Your task to perform on an android device: open app "Google Maps" (install if not already installed) Image 0: 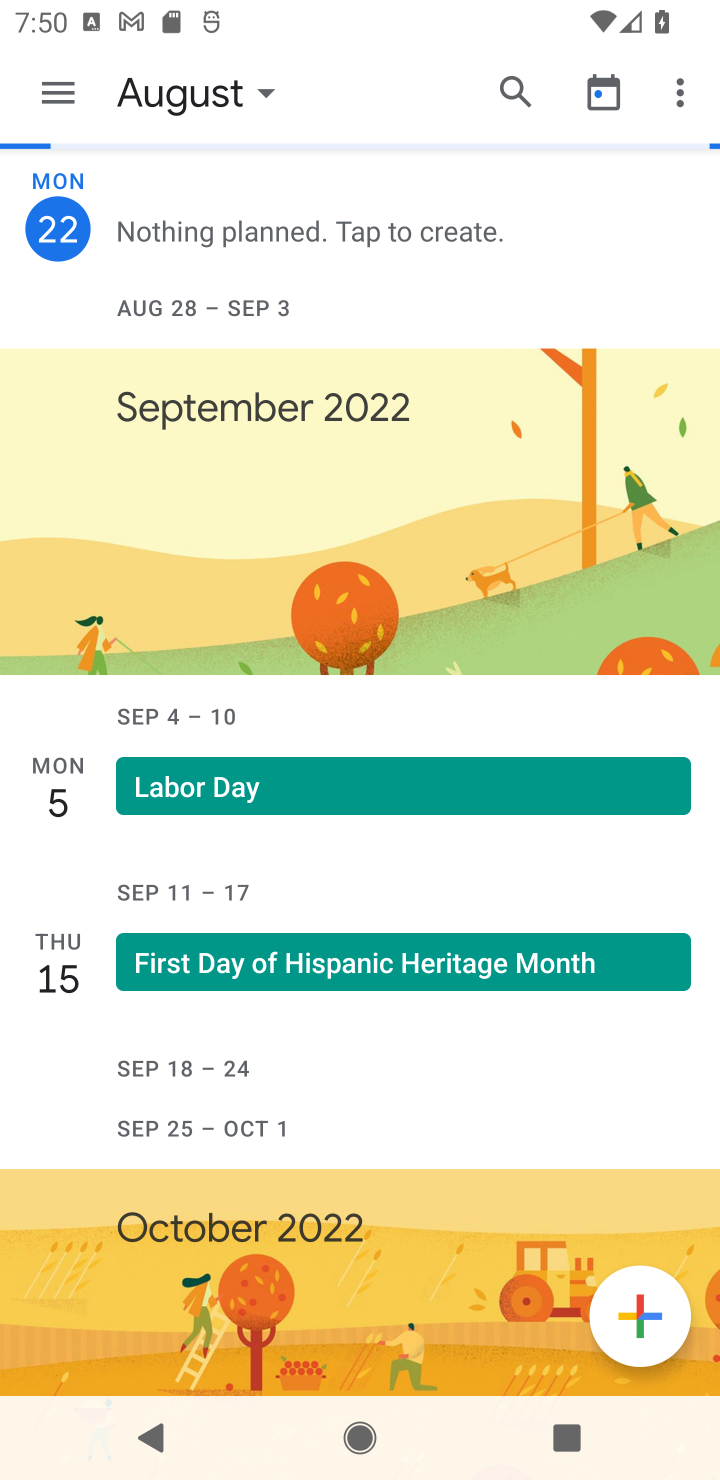
Step 0: press home button
Your task to perform on an android device: open app "Google Maps" (install if not already installed) Image 1: 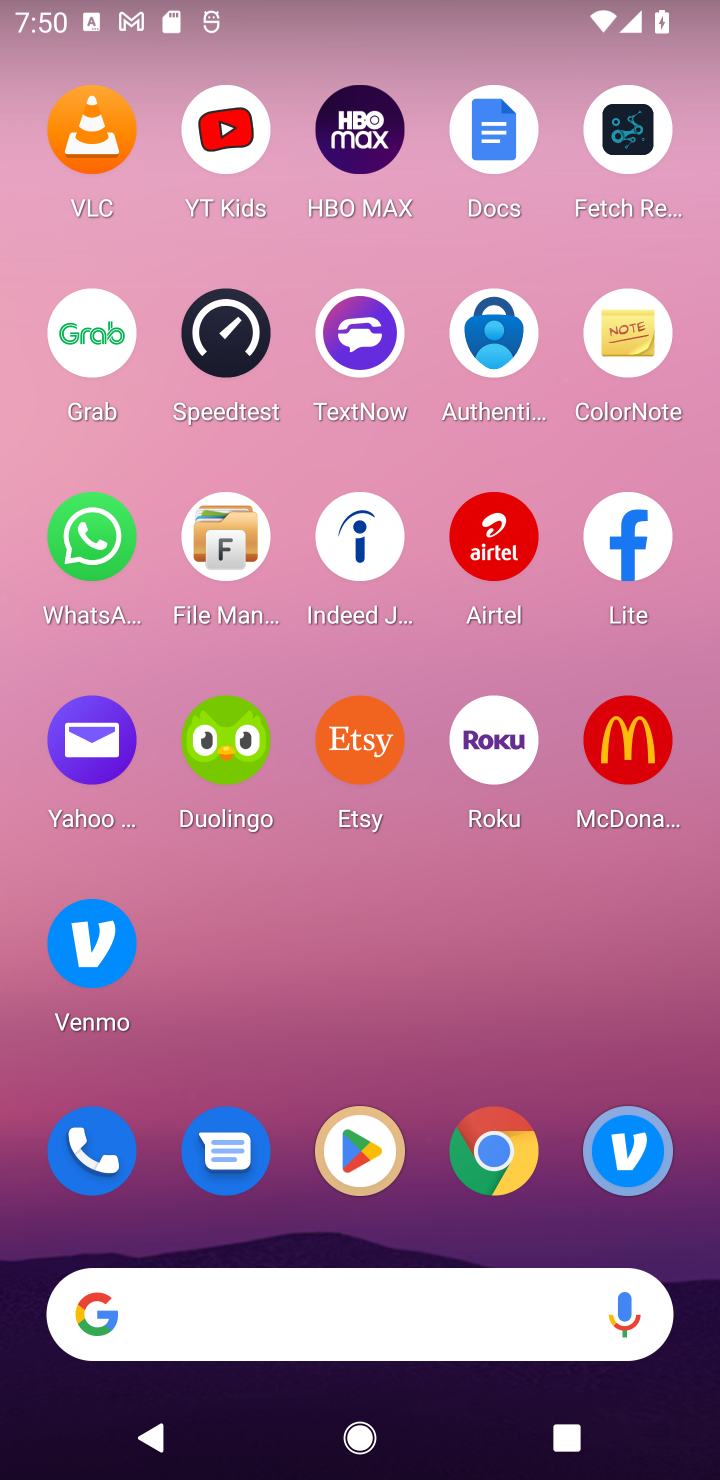
Step 1: press home button
Your task to perform on an android device: open app "Google Maps" (install if not already installed) Image 2: 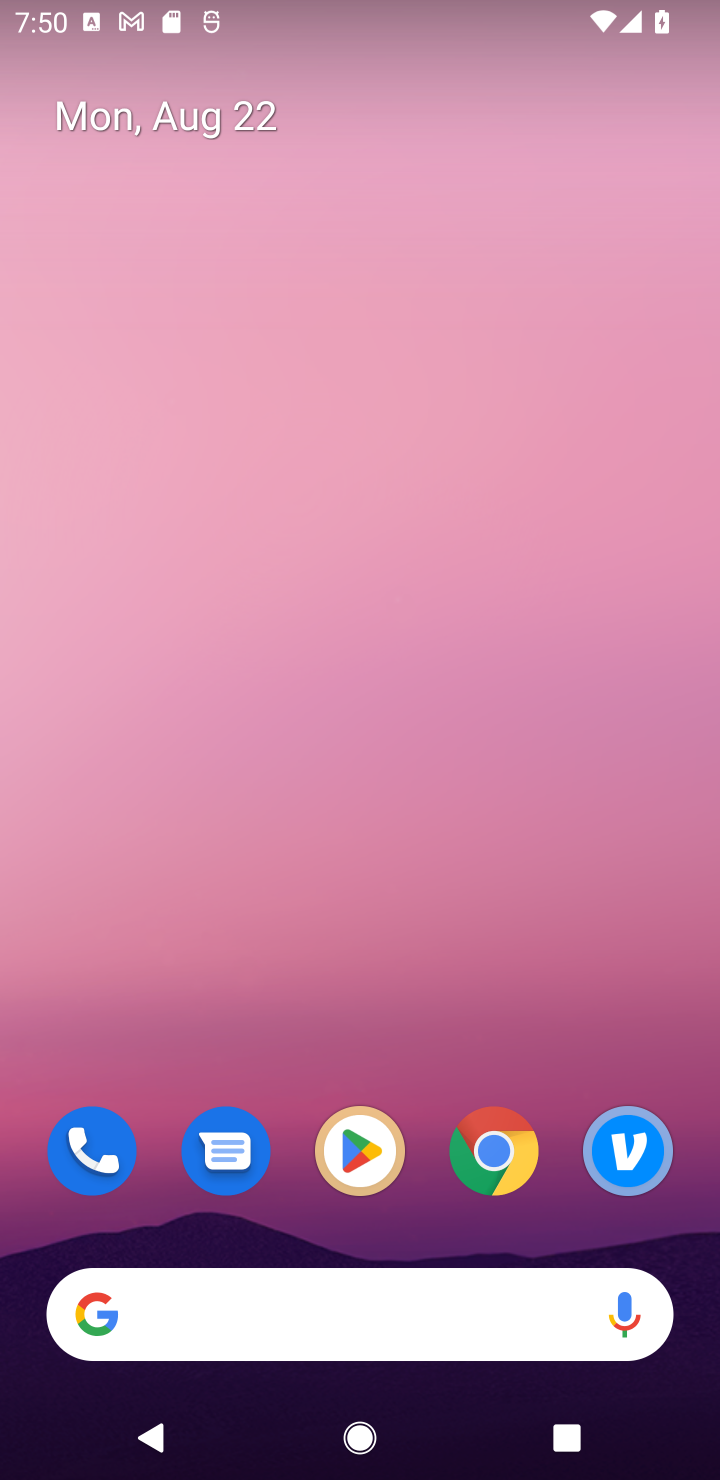
Step 2: click (347, 1136)
Your task to perform on an android device: open app "Google Maps" (install if not already installed) Image 3: 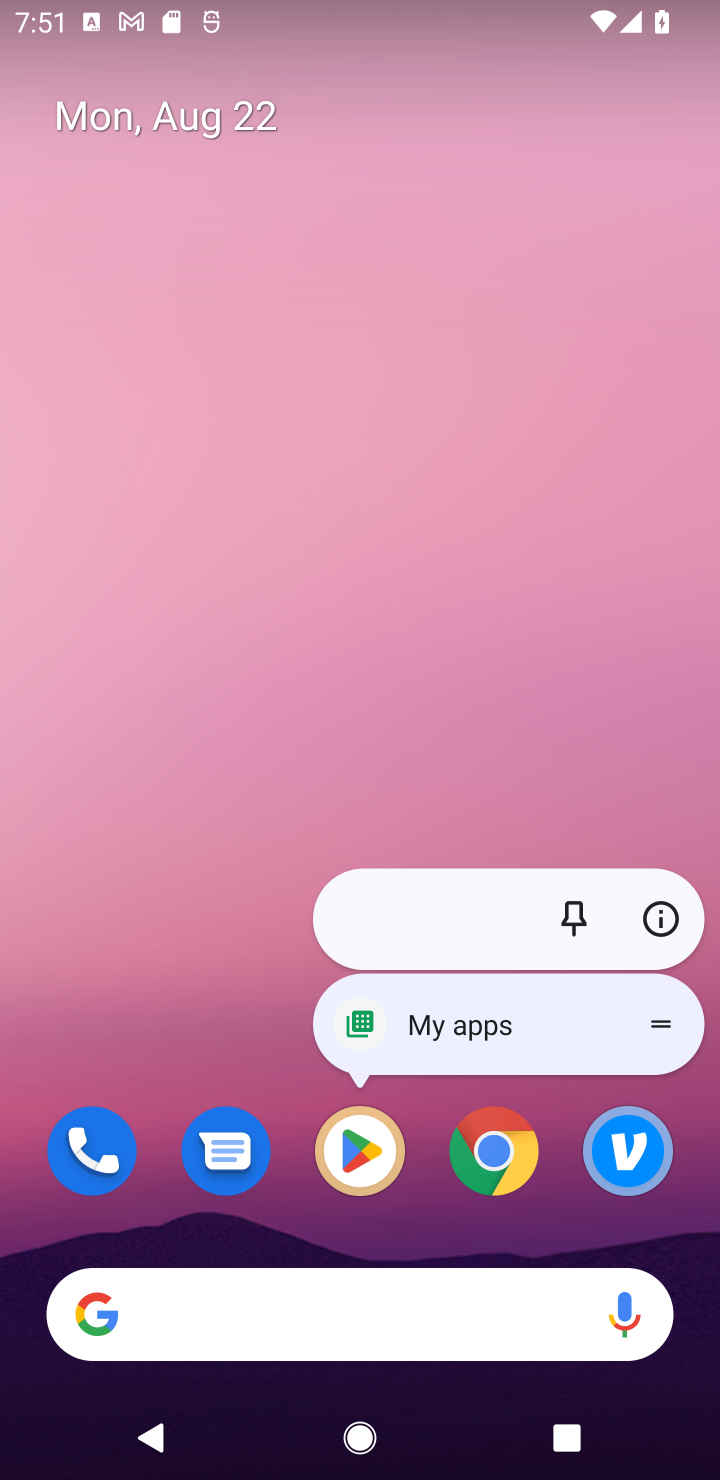
Step 3: click (356, 1166)
Your task to perform on an android device: open app "Google Maps" (install if not already installed) Image 4: 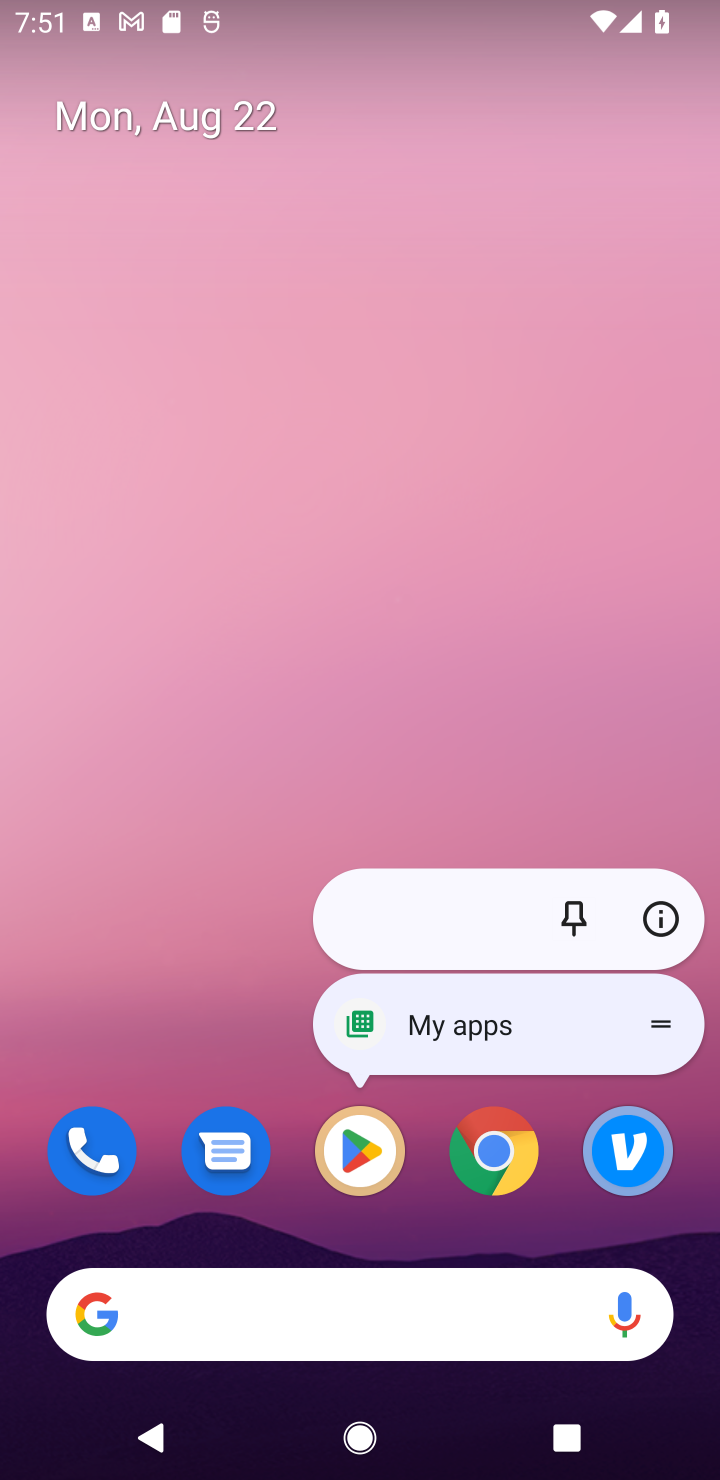
Step 4: click (362, 1155)
Your task to perform on an android device: open app "Google Maps" (install if not already installed) Image 5: 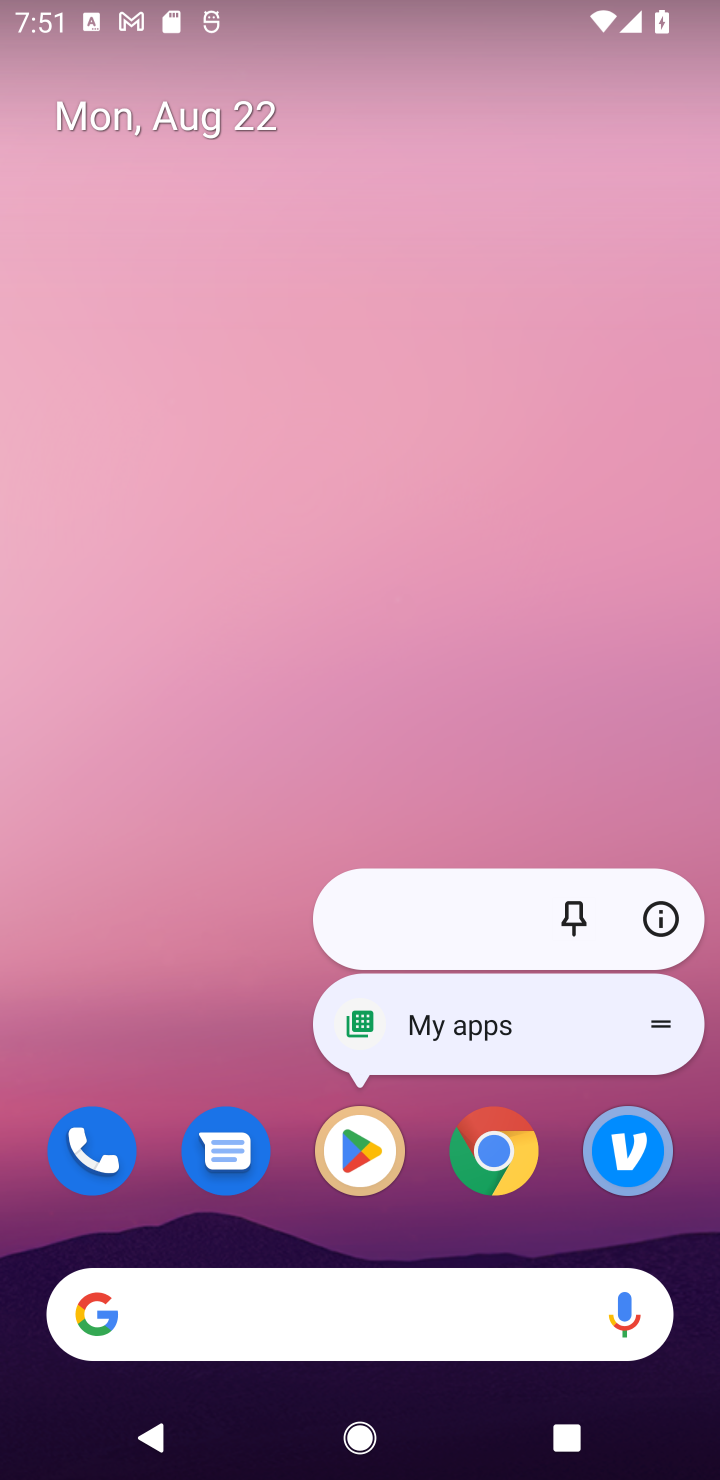
Step 5: click (362, 1164)
Your task to perform on an android device: open app "Google Maps" (install if not already installed) Image 6: 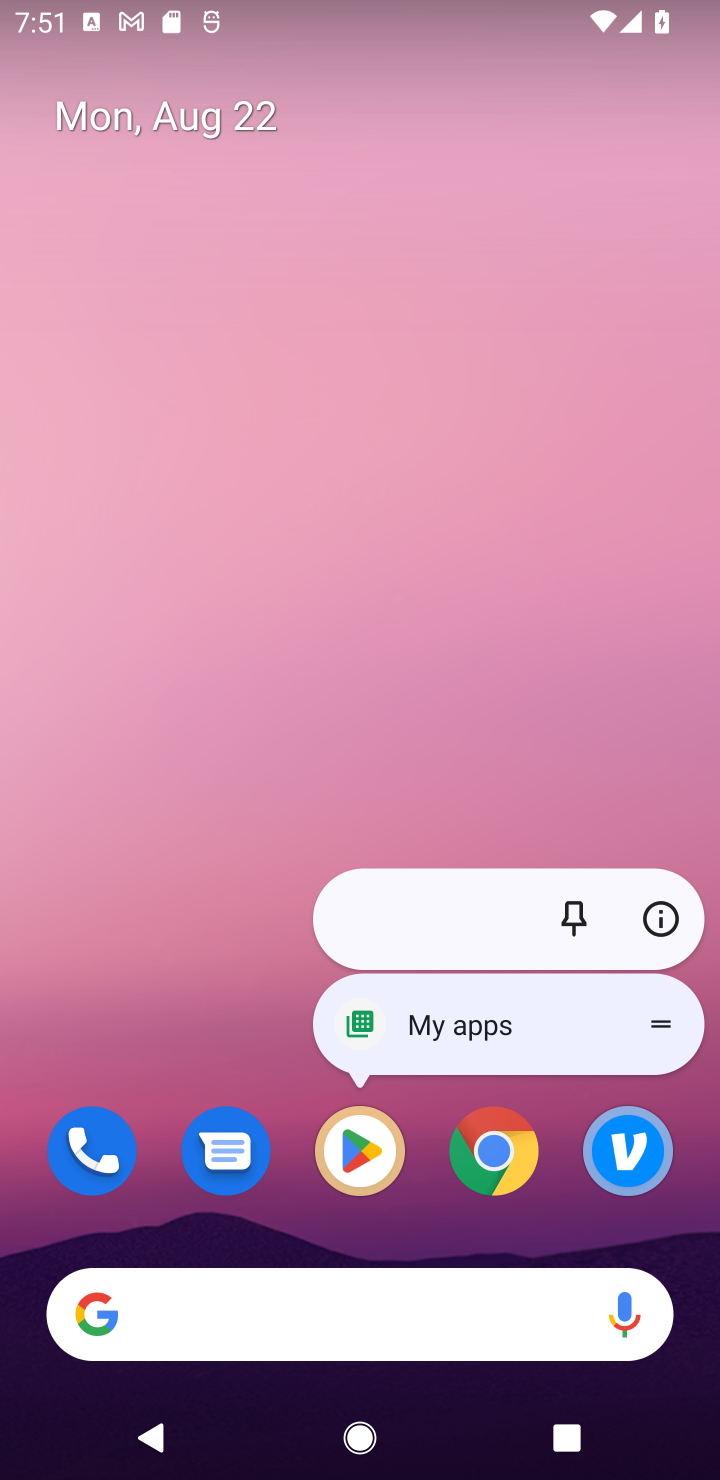
Step 6: click (362, 1164)
Your task to perform on an android device: open app "Google Maps" (install if not already installed) Image 7: 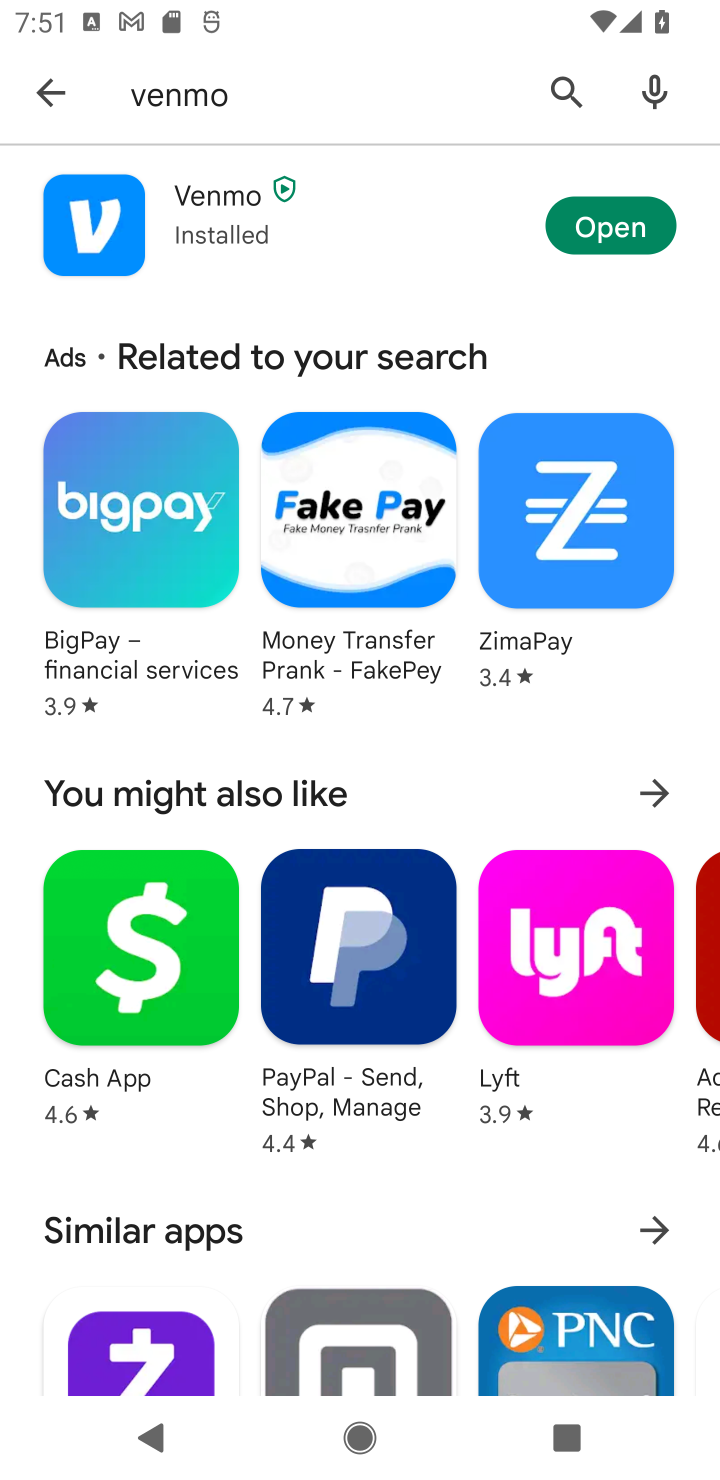
Step 7: click (551, 80)
Your task to perform on an android device: open app "Google Maps" (install if not already installed) Image 8: 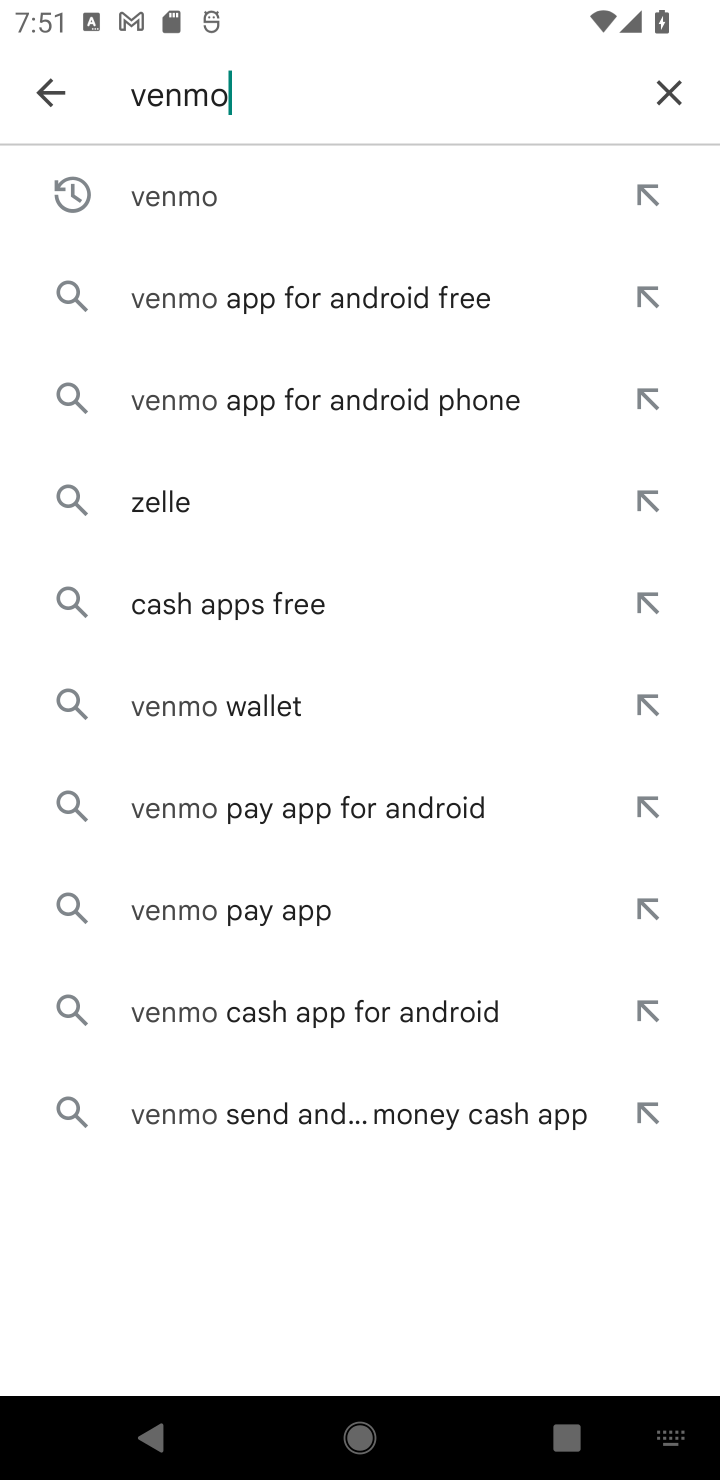
Step 8: click (667, 89)
Your task to perform on an android device: open app "Google Maps" (install if not already installed) Image 9: 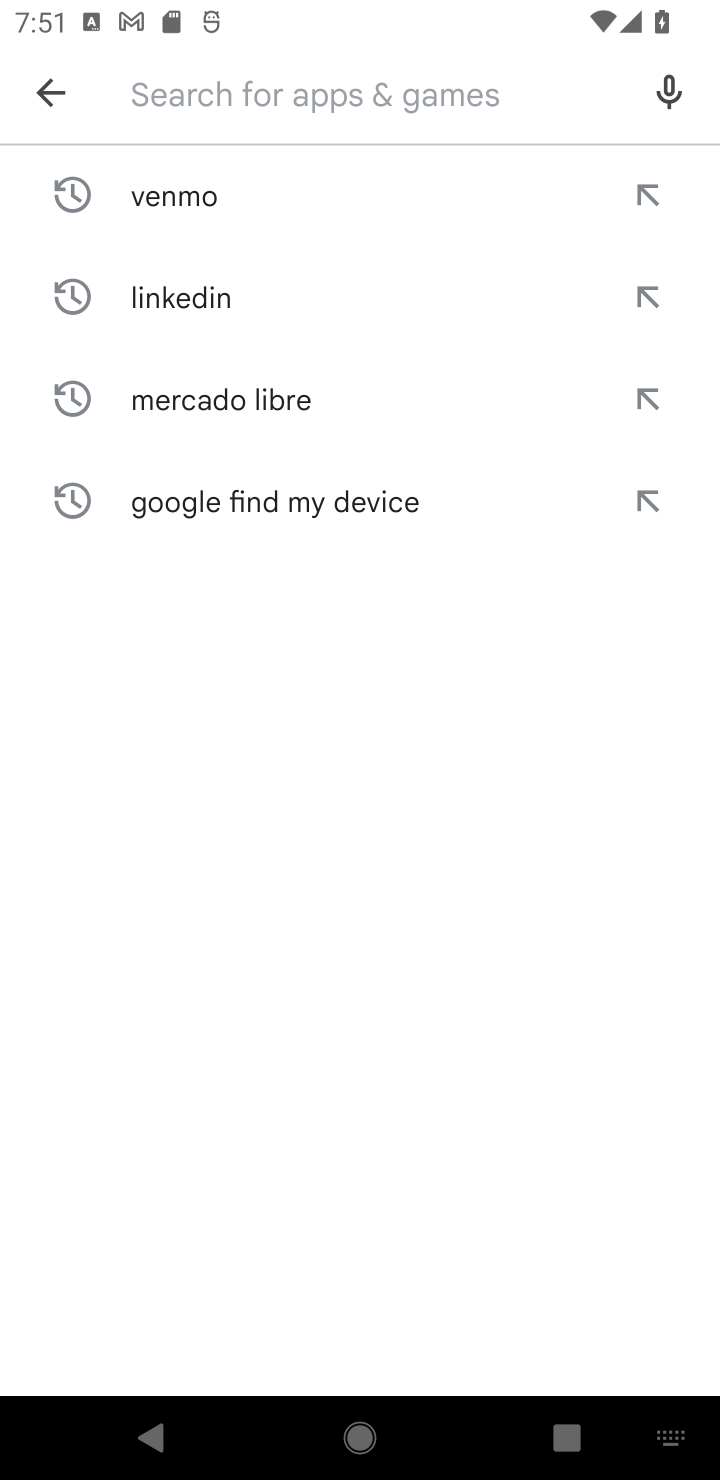
Step 9: type "Google Maps"
Your task to perform on an android device: open app "Google Maps" (install if not already installed) Image 10: 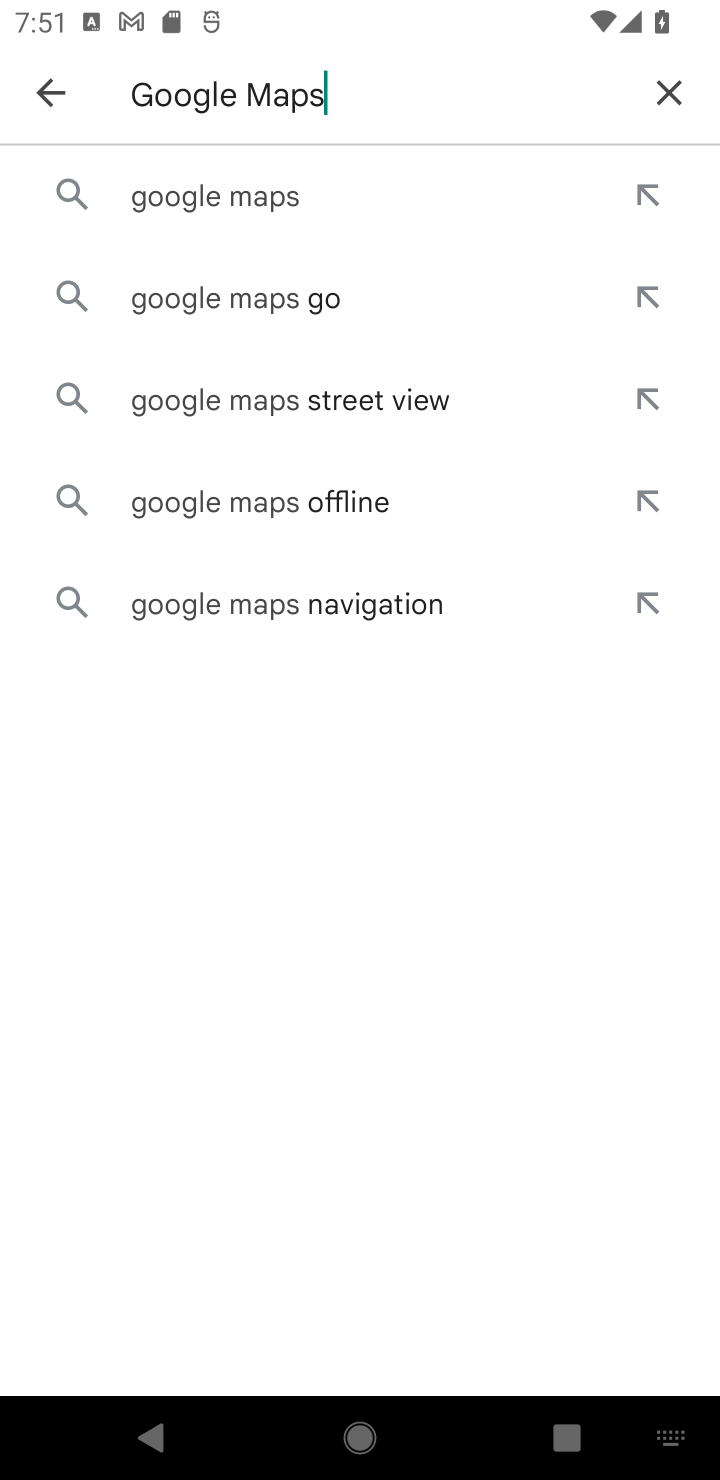
Step 10: click (250, 201)
Your task to perform on an android device: open app "Google Maps" (install if not already installed) Image 11: 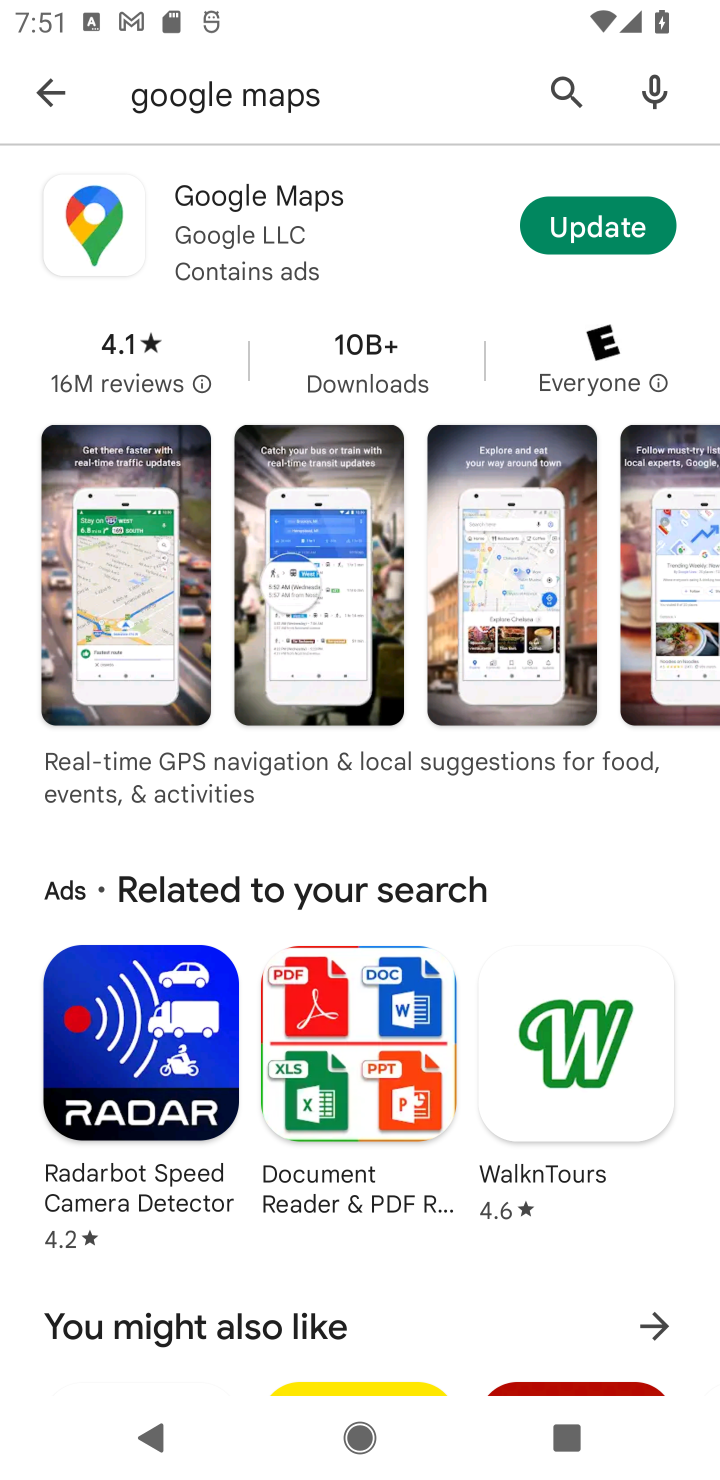
Step 11: click (223, 220)
Your task to perform on an android device: open app "Google Maps" (install if not already installed) Image 12: 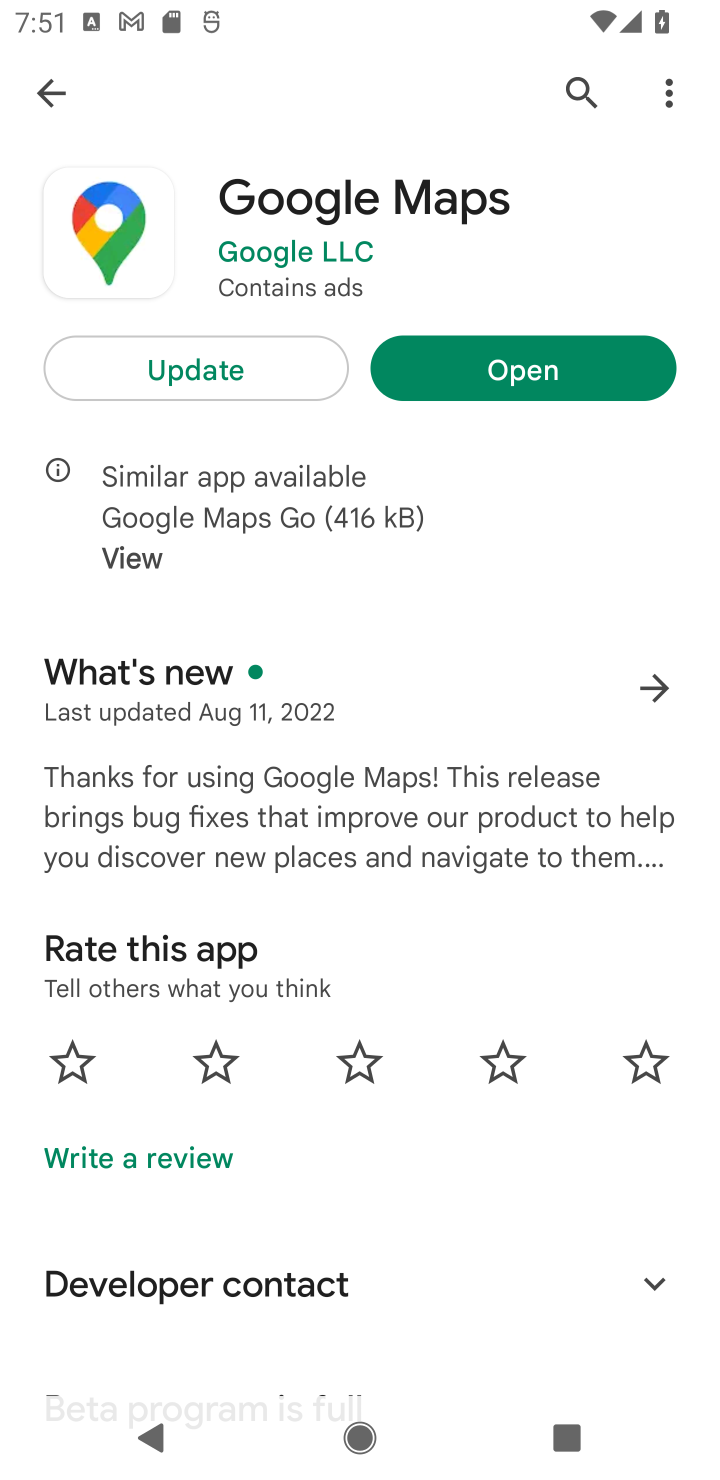
Step 12: click (567, 352)
Your task to perform on an android device: open app "Google Maps" (install if not already installed) Image 13: 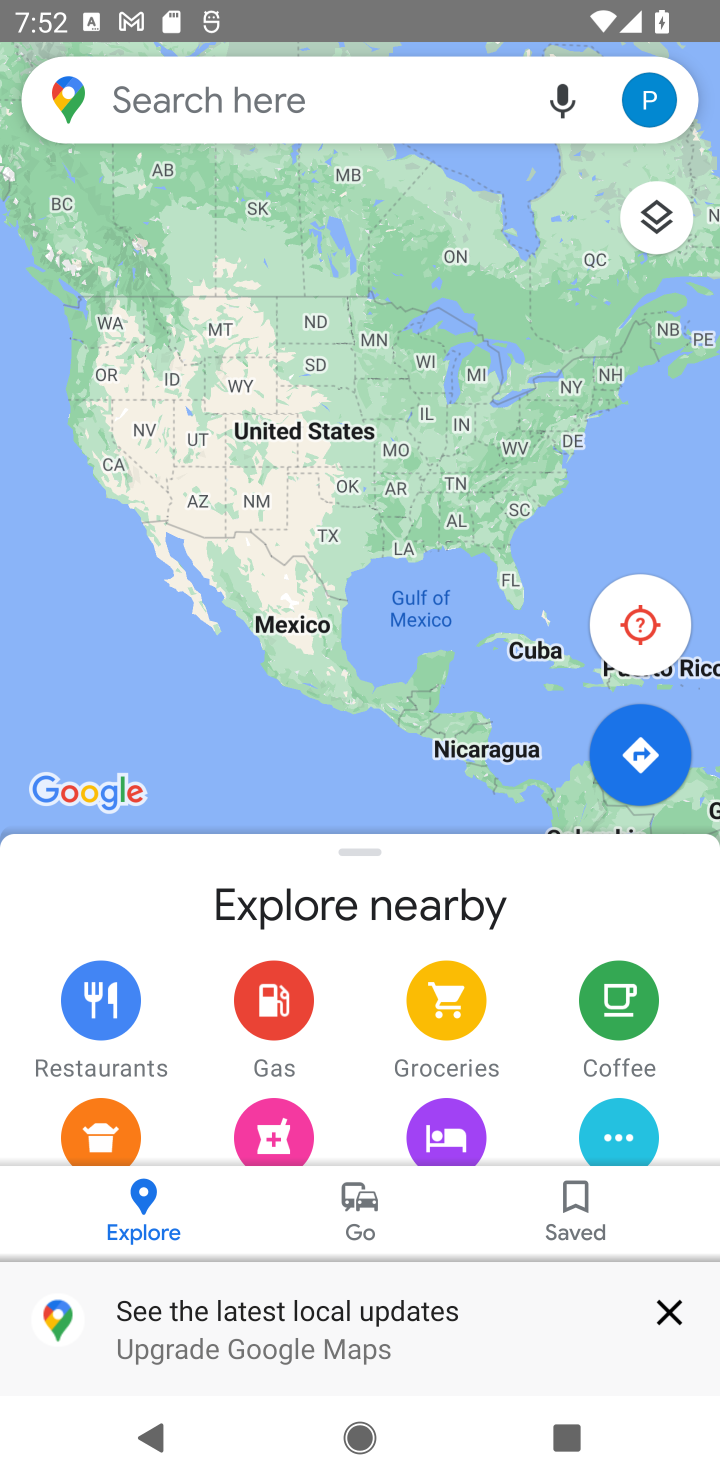
Step 13: task complete